Your task to perform on an android device: What's on my calendar tomorrow? Image 0: 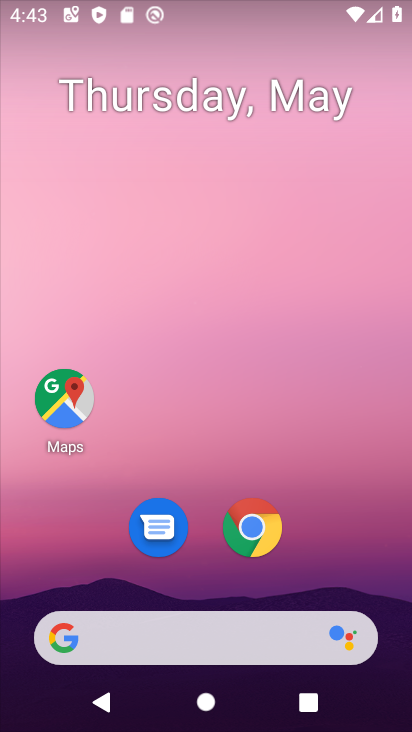
Step 0: press home button
Your task to perform on an android device: What's on my calendar tomorrow? Image 1: 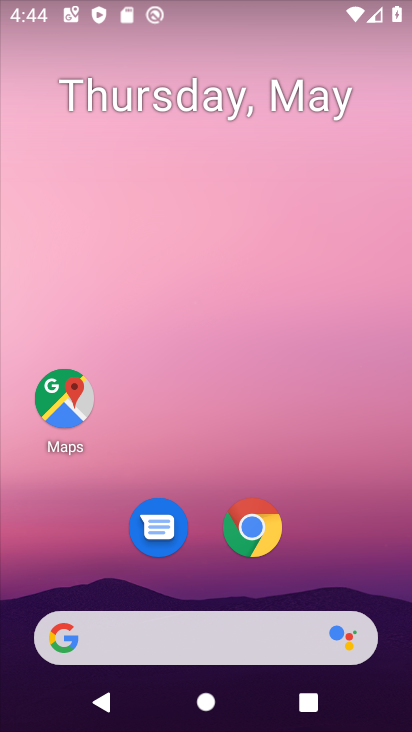
Step 1: drag from (318, 513) to (225, 218)
Your task to perform on an android device: What's on my calendar tomorrow? Image 2: 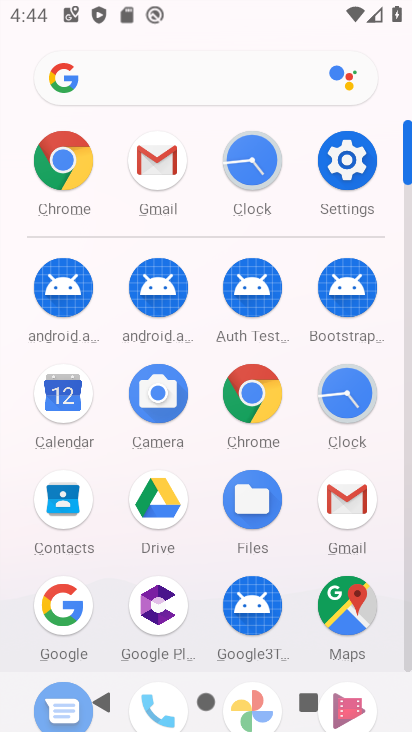
Step 2: click (40, 383)
Your task to perform on an android device: What's on my calendar tomorrow? Image 3: 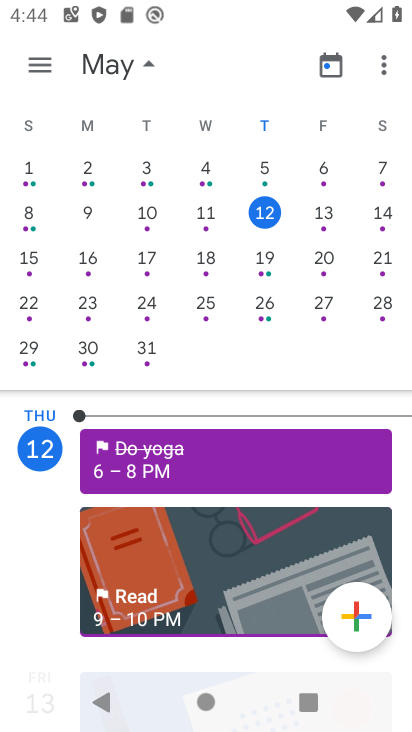
Step 3: click (329, 216)
Your task to perform on an android device: What's on my calendar tomorrow? Image 4: 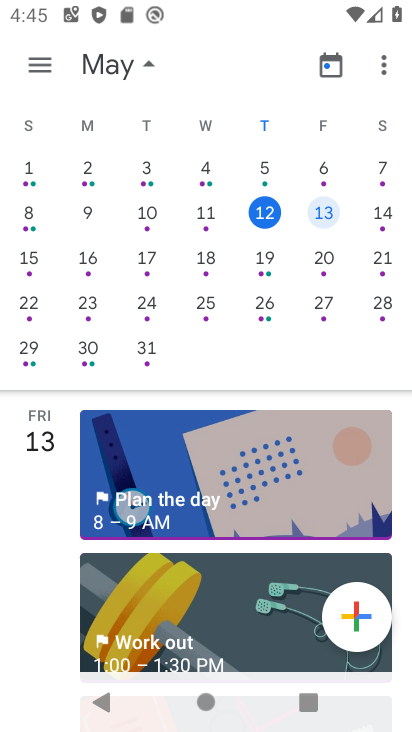
Step 4: task complete